Your task to perform on an android device: turn off priority inbox in the gmail app Image 0: 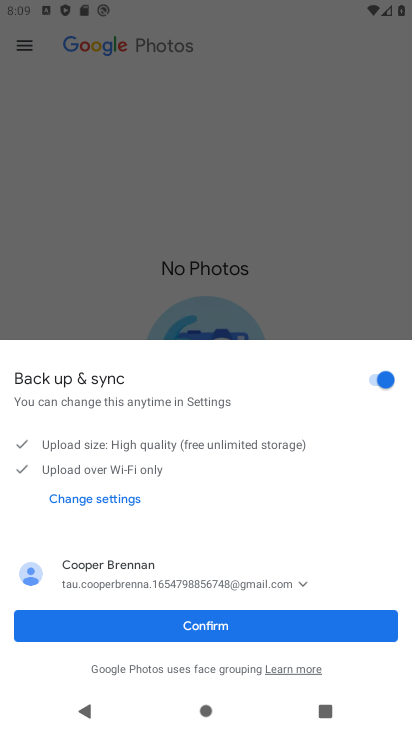
Step 0: press home button
Your task to perform on an android device: turn off priority inbox in the gmail app Image 1: 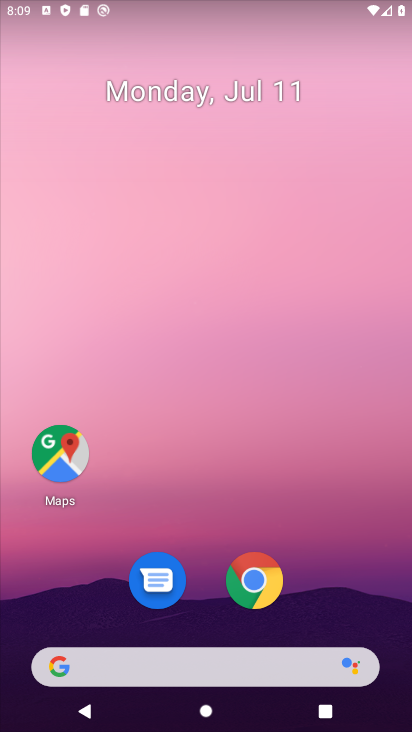
Step 1: drag from (310, 579) to (339, 59)
Your task to perform on an android device: turn off priority inbox in the gmail app Image 2: 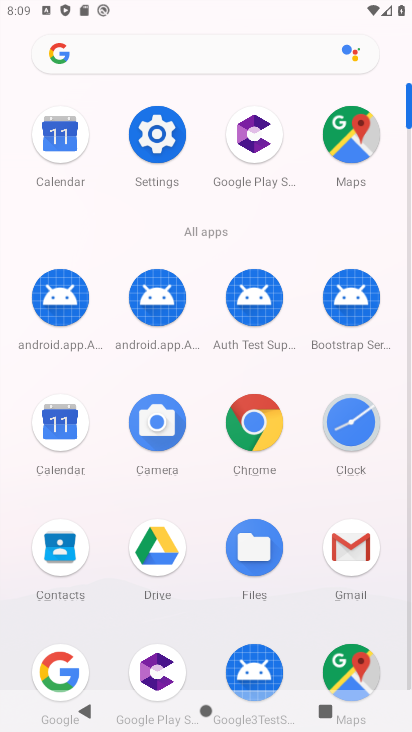
Step 2: click (341, 547)
Your task to perform on an android device: turn off priority inbox in the gmail app Image 3: 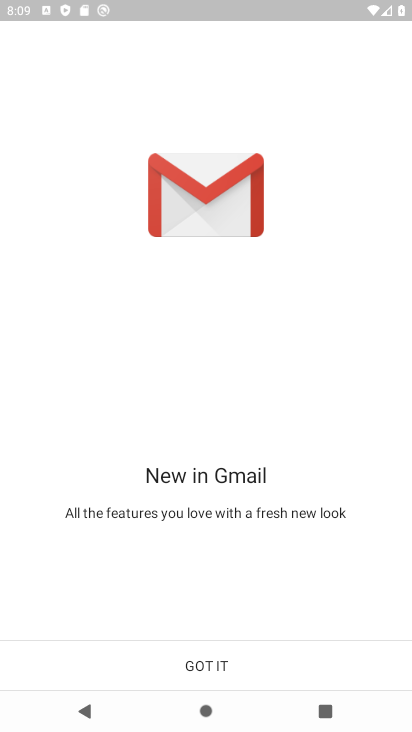
Step 3: click (214, 662)
Your task to perform on an android device: turn off priority inbox in the gmail app Image 4: 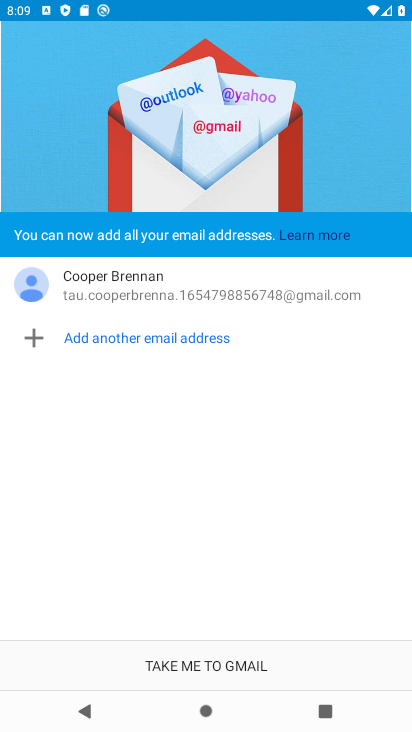
Step 4: click (214, 662)
Your task to perform on an android device: turn off priority inbox in the gmail app Image 5: 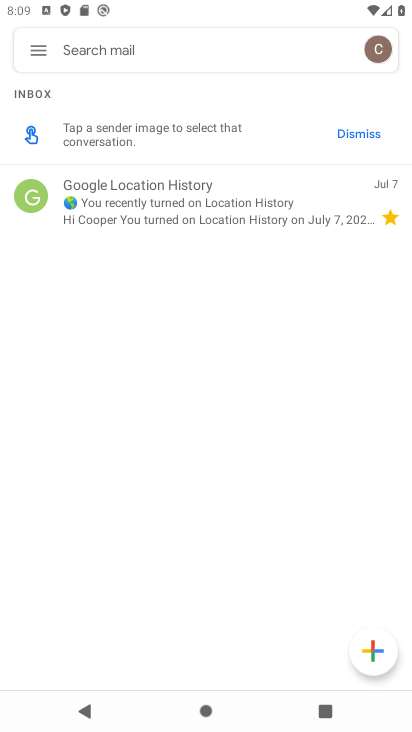
Step 5: click (36, 51)
Your task to perform on an android device: turn off priority inbox in the gmail app Image 6: 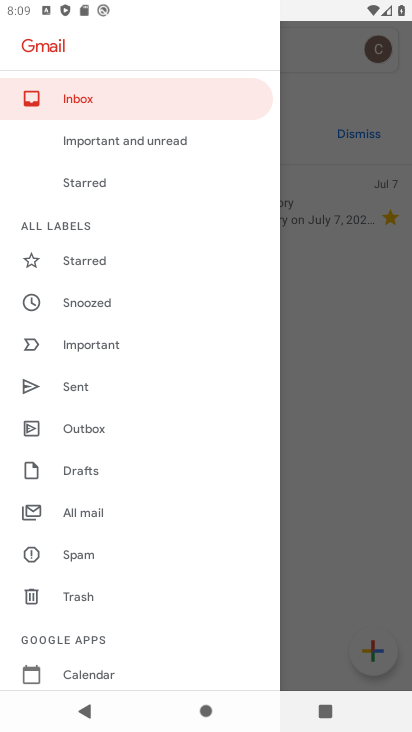
Step 6: drag from (126, 606) to (169, 421)
Your task to perform on an android device: turn off priority inbox in the gmail app Image 7: 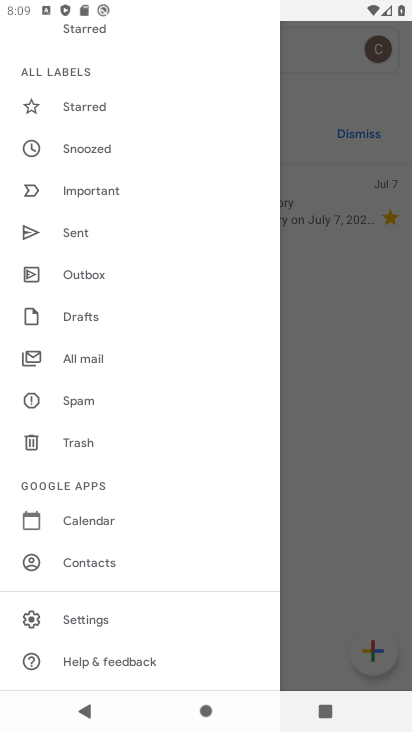
Step 7: click (93, 619)
Your task to perform on an android device: turn off priority inbox in the gmail app Image 8: 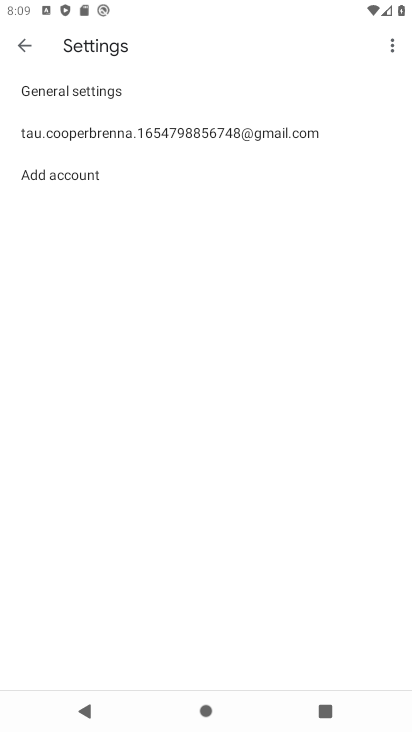
Step 8: click (249, 134)
Your task to perform on an android device: turn off priority inbox in the gmail app Image 9: 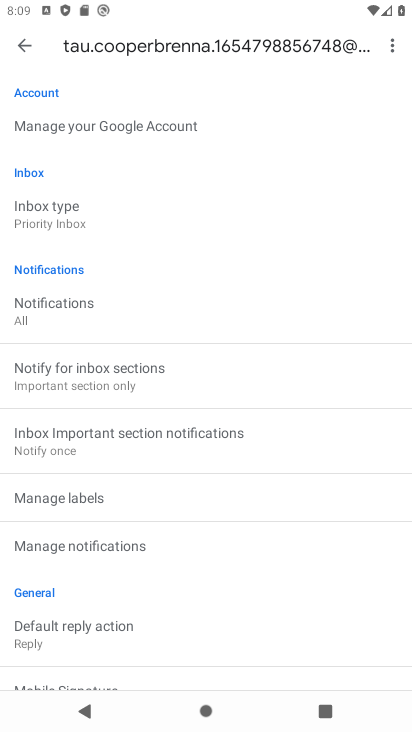
Step 9: click (59, 210)
Your task to perform on an android device: turn off priority inbox in the gmail app Image 10: 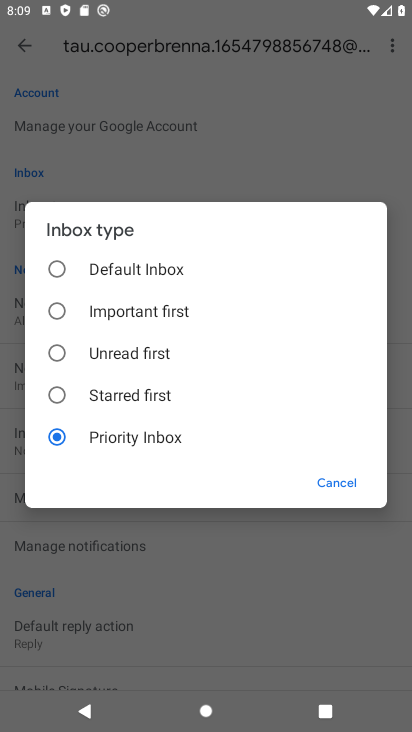
Step 10: click (54, 266)
Your task to perform on an android device: turn off priority inbox in the gmail app Image 11: 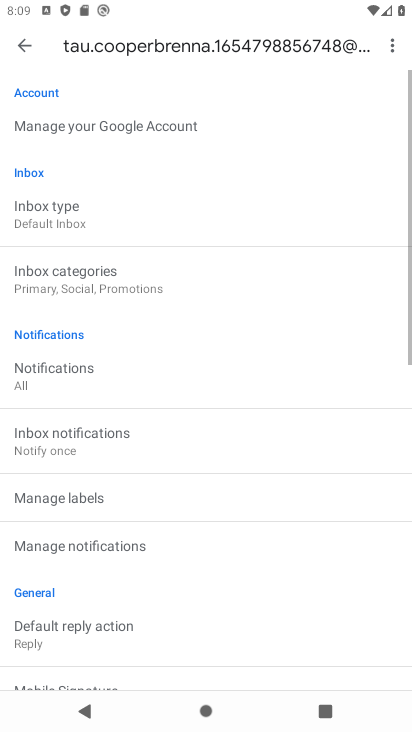
Step 11: task complete